Your task to perform on an android device: turn on wifi Image 0: 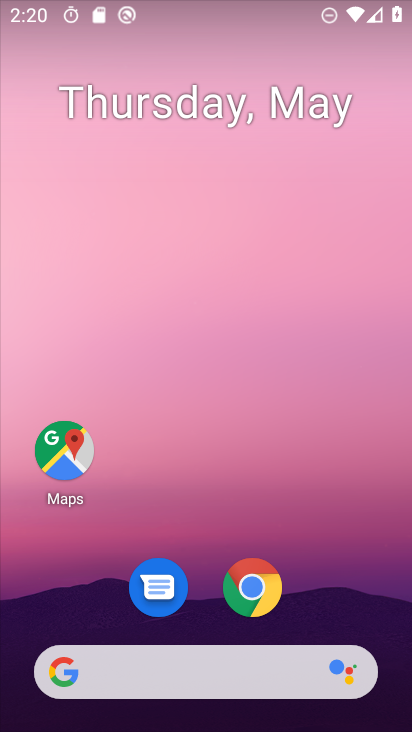
Step 0: drag from (333, 527) to (353, 122)
Your task to perform on an android device: turn on wifi Image 1: 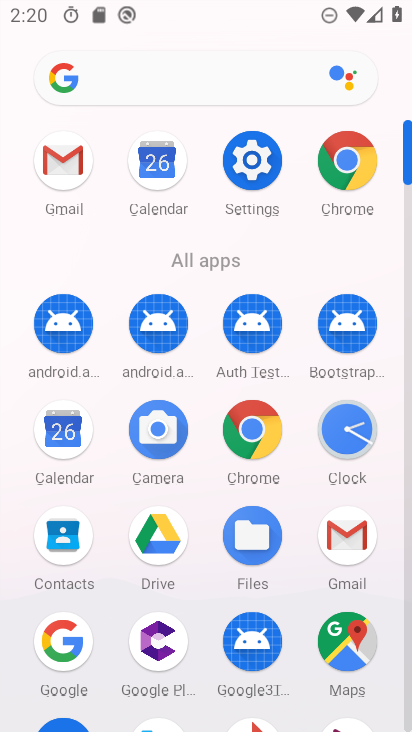
Step 1: click (244, 156)
Your task to perform on an android device: turn on wifi Image 2: 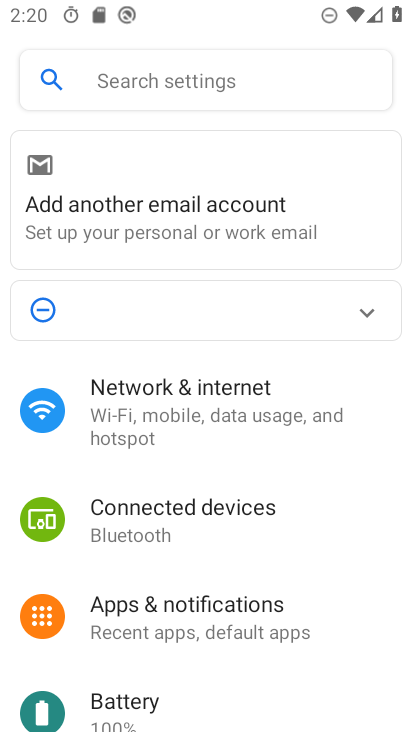
Step 2: click (180, 400)
Your task to perform on an android device: turn on wifi Image 3: 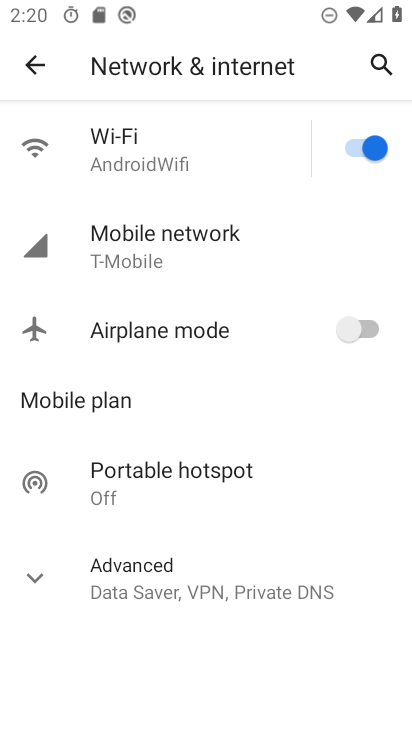
Step 3: click (222, 146)
Your task to perform on an android device: turn on wifi Image 4: 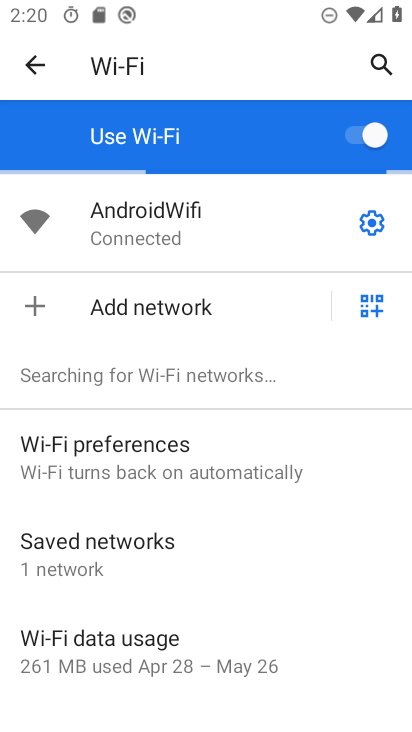
Step 4: task complete